Your task to perform on an android device: Open settings on Google Maps Image 0: 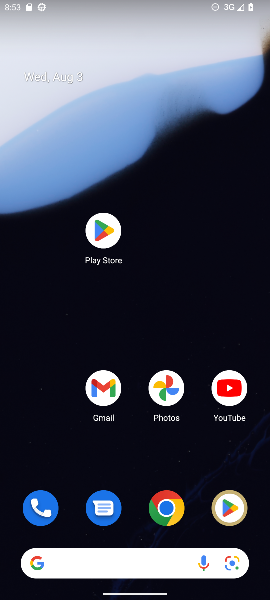
Step 0: drag from (119, 538) to (75, 43)
Your task to perform on an android device: Open settings on Google Maps Image 1: 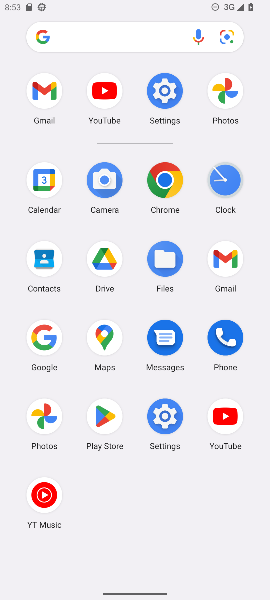
Step 1: click (104, 330)
Your task to perform on an android device: Open settings on Google Maps Image 2: 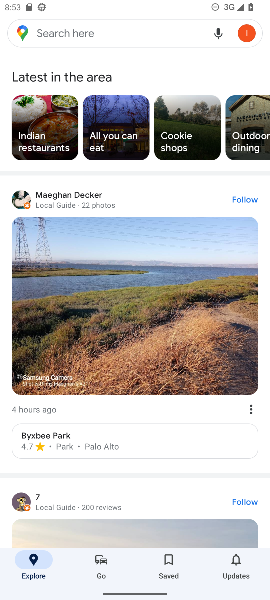
Step 2: press home button
Your task to perform on an android device: Open settings on Google Maps Image 3: 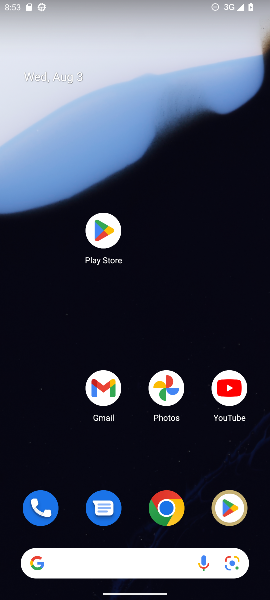
Step 3: drag from (130, 525) to (73, 15)
Your task to perform on an android device: Open settings on Google Maps Image 4: 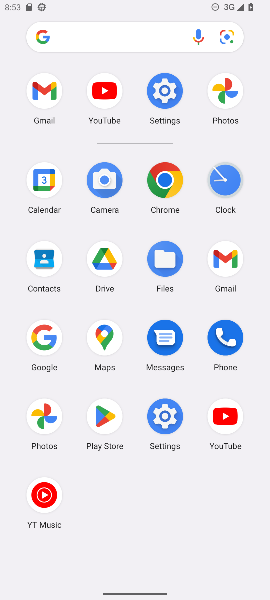
Step 4: click (106, 337)
Your task to perform on an android device: Open settings on Google Maps Image 5: 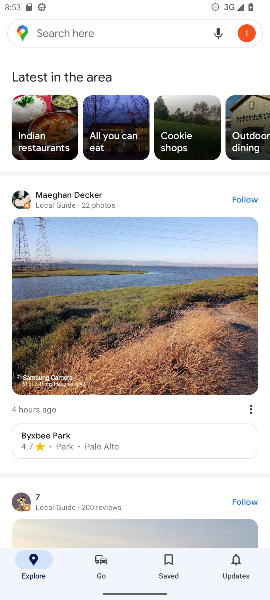
Step 5: click (24, 32)
Your task to perform on an android device: Open settings on Google Maps Image 6: 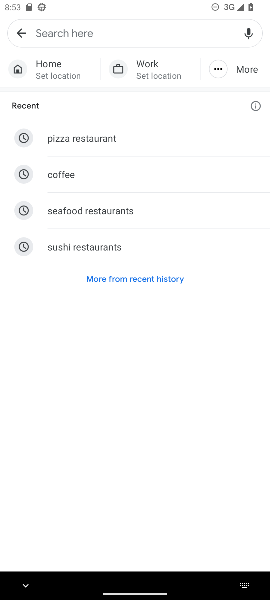
Step 6: click (12, 34)
Your task to perform on an android device: Open settings on Google Maps Image 7: 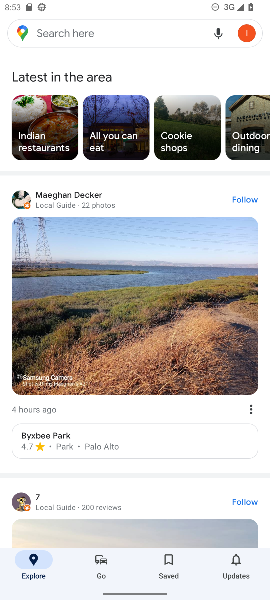
Step 7: click (245, 38)
Your task to perform on an android device: Open settings on Google Maps Image 8: 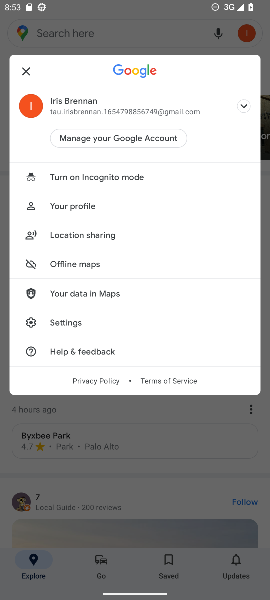
Step 8: click (69, 322)
Your task to perform on an android device: Open settings on Google Maps Image 9: 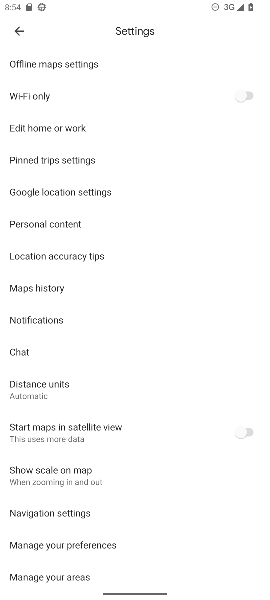
Step 9: task complete